Your task to perform on an android device: Search for Mexican restaurants on Maps Image 0: 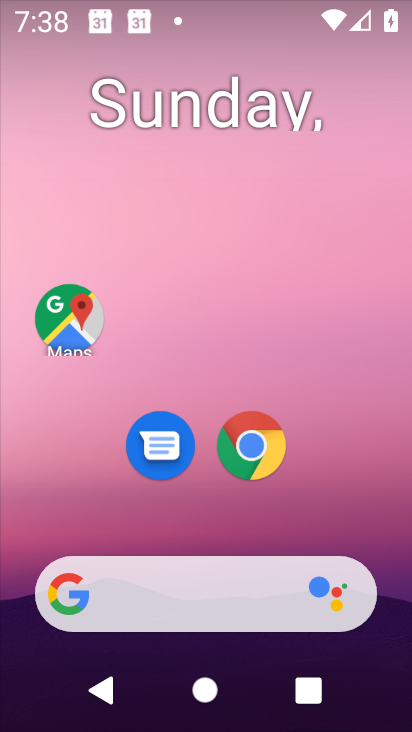
Step 0: click (53, 326)
Your task to perform on an android device: Search for Mexican restaurants on Maps Image 1: 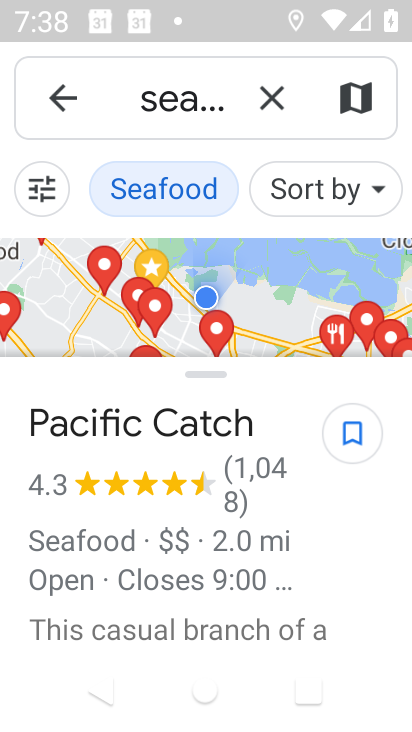
Step 1: click (275, 101)
Your task to perform on an android device: Search for Mexican restaurants on Maps Image 2: 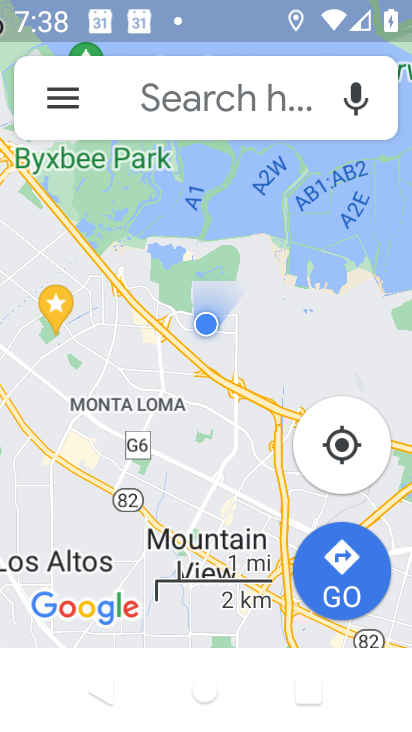
Step 2: click (172, 106)
Your task to perform on an android device: Search for Mexican restaurants on Maps Image 3: 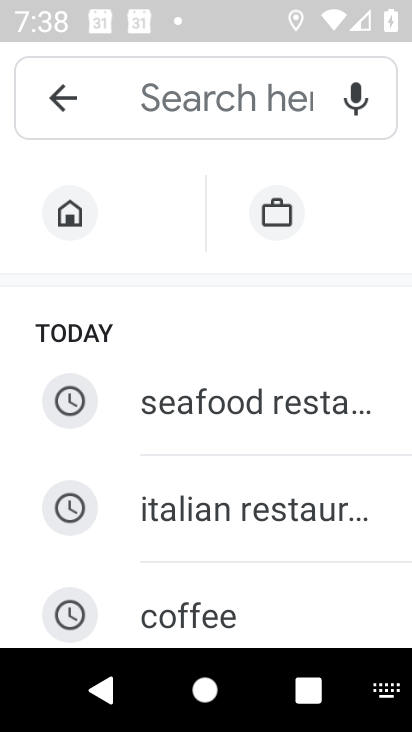
Step 3: drag from (23, 531) to (163, 183)
Your task to perform on an android device: Search for Mexican restaurants on Maps Image 4: 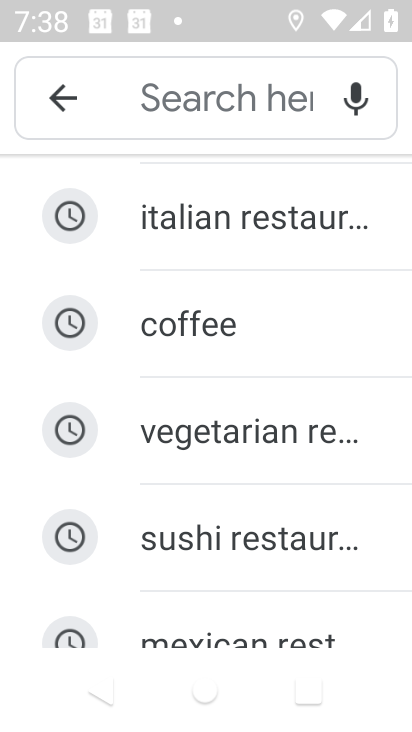
Step 4: click (148, 238)
Your task to perform on an android device: Search for Mexican restaurants on Maps Image 5: 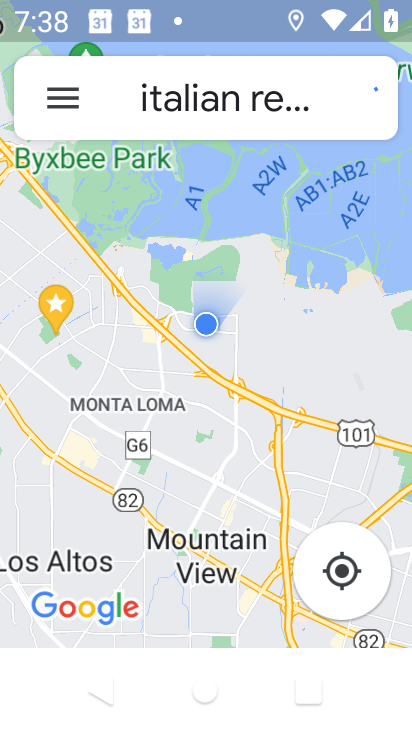
Step 5: click (313, 102)
Your task to perform on an android device: Search for Mexican restaurants on Maps Image 6: 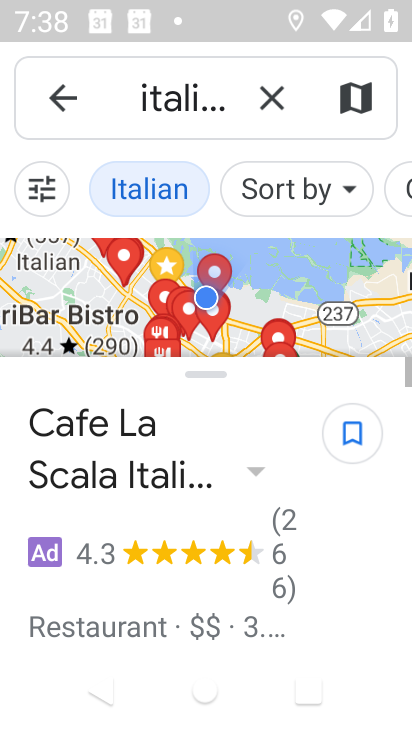
Step 6: click (269, 99)
Your task to perform on an android device: Search for Mexican restaurants on Maps Image 7: 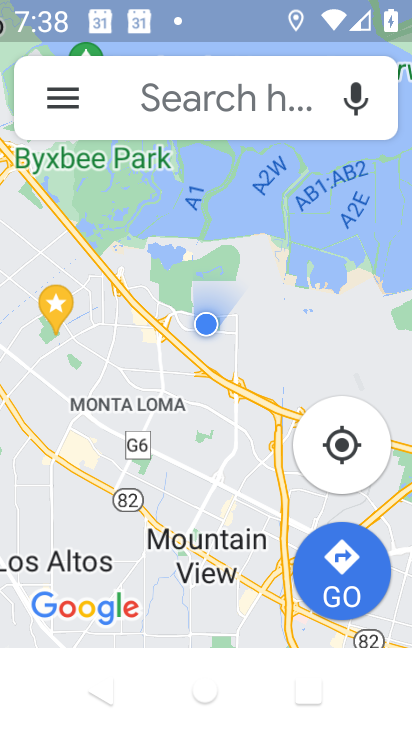
Step 7: click (157, 103)
Your task to perform on an android device: Search for Mexican restaurants on Maps Image 8: 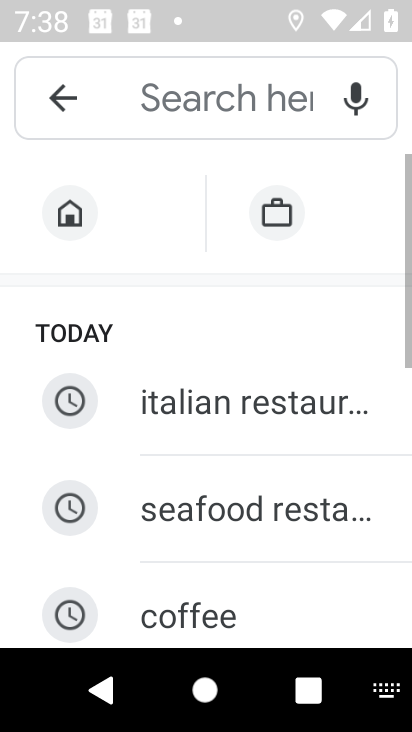
Step 8: drag from (90, 643) to (229, 127)
Your task to perform on an android device: Search for Mexican restaurants on Maps Image 9: 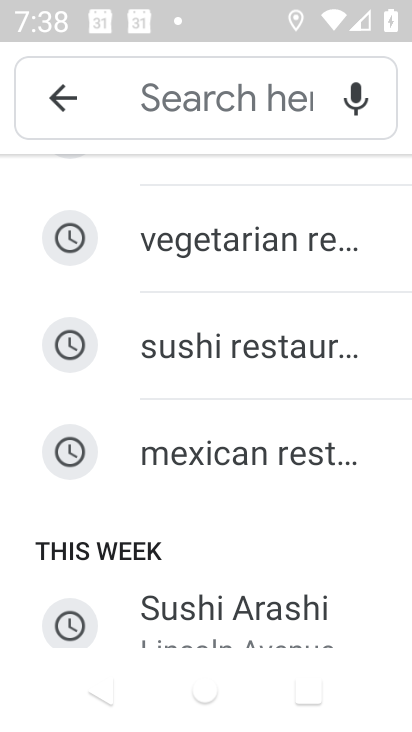
Step 9: click (200, 462)
Your task to perform on an android device: Search for Mexican restaurants on Maps Image 10: 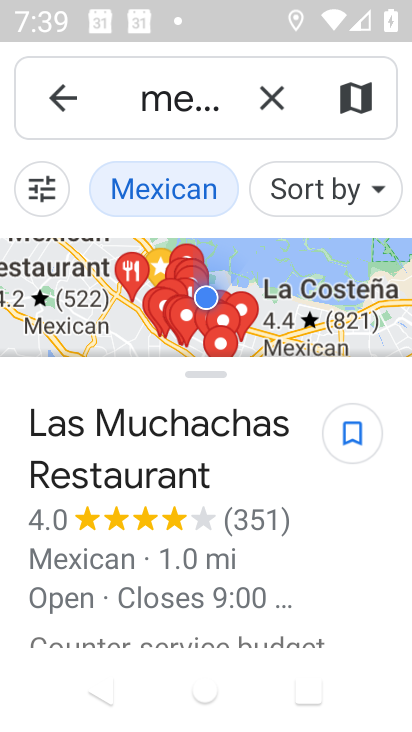
Step 10: task complete